Your task to perform on an android device: turn on showing notifications on the lock screen Image 0: 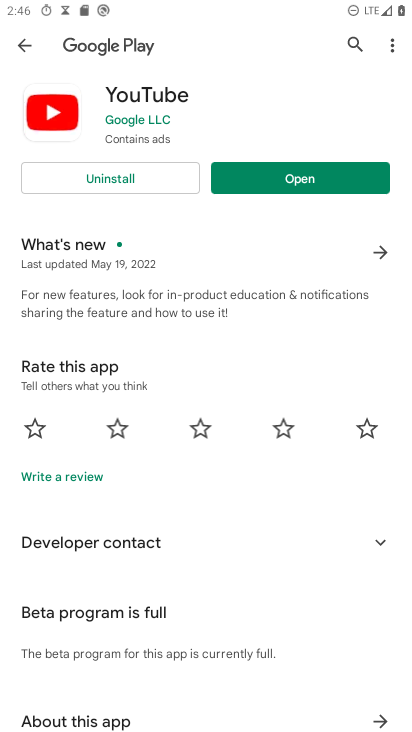
Step 0: press home button
Your task to perform on an android device: turn on showing notifications on the lock screen Image 1: 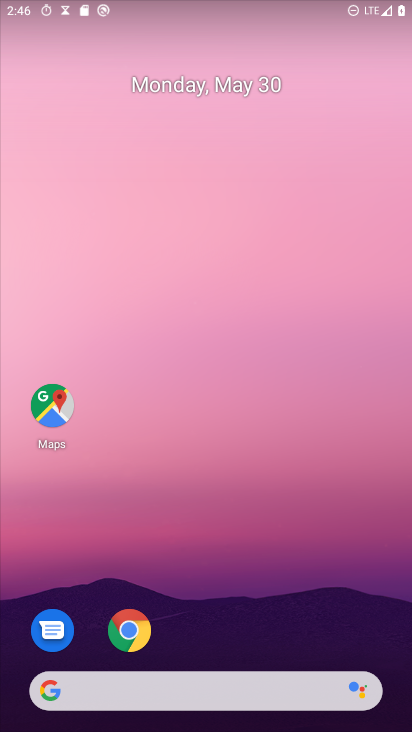
Step 1: drag from (176, 717) to (270, 110)
Your task to perform on an android device: turn on showing notifications on the lock screen Image 2: 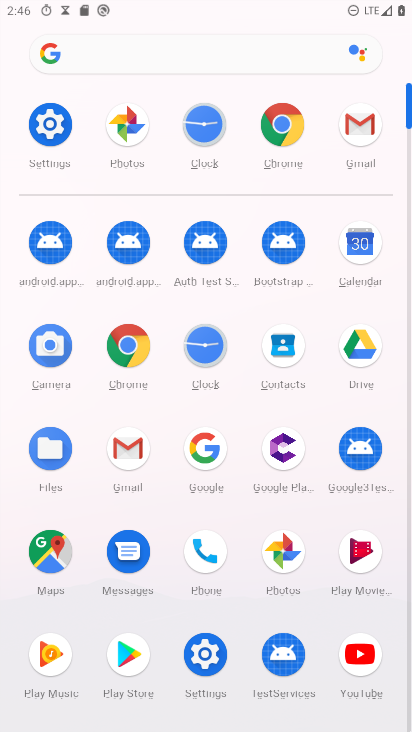
Step 2: click (45, 125)
Your task to perform on an android device: turn on showing notifications on the lock screen Image 3: 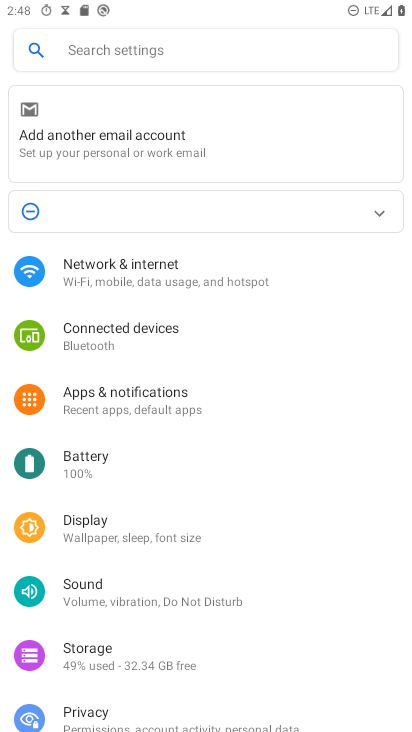
Step 3: click (90, 48)
Your task to perform on an android device: turn on showing notifications on the lock screen Image 4: 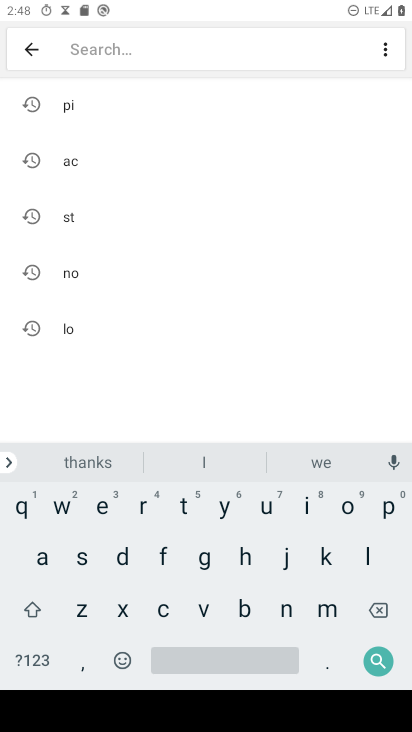
Step 4: click (273, 596)
Your task to perform on an android device: turn on showing notifications on the lock screen Image 5: 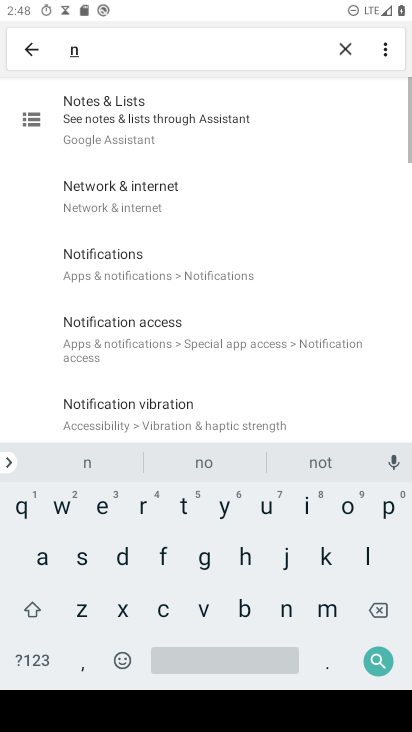
Step 5: click (347, 507)
Your task to perform on an android device: turn on showing notifications on the lock screen Image 6: 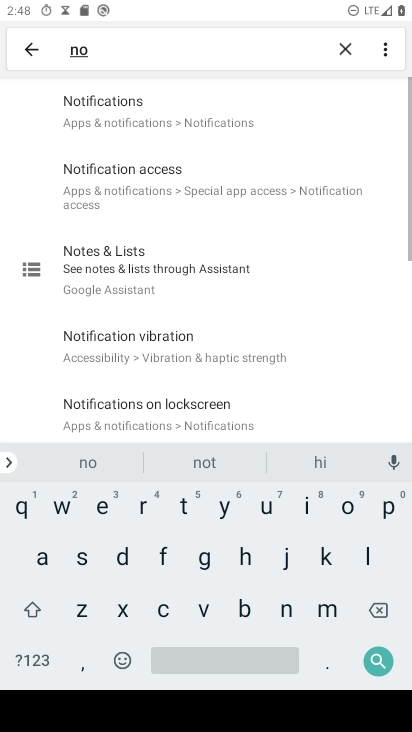
Step 6: click (143, 126)
Your task to perform on an android device: turn on showing notifications on the lock screen Image 7: 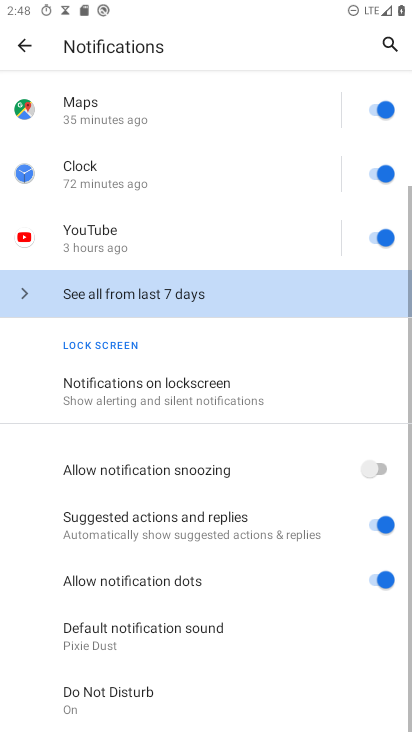
Step 7: task complete